Your task to perform on an android device: make emails show in primary in the gmail app Image 0: 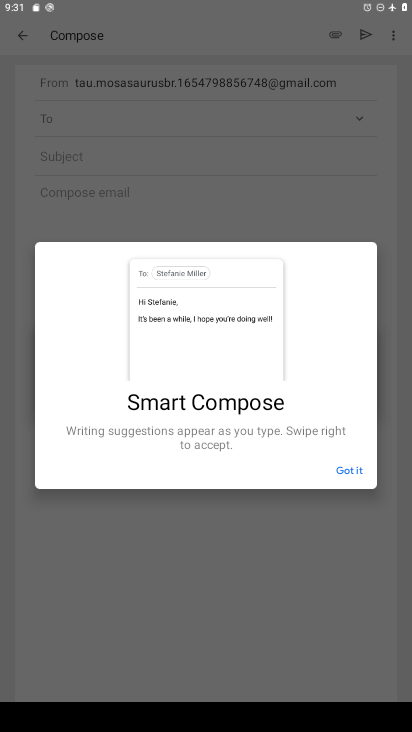
Step 0: press home button
Your task to perform on an android device: make emails show in primary in the gmail app Image 1: 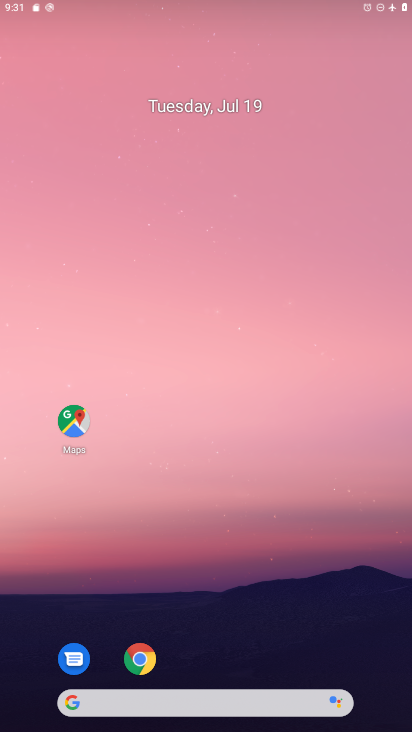
Step 1: drag from (251, 638) to (261, 197)
Your task to perform on an android device: make emails show in primary in the gmail app Image 2: 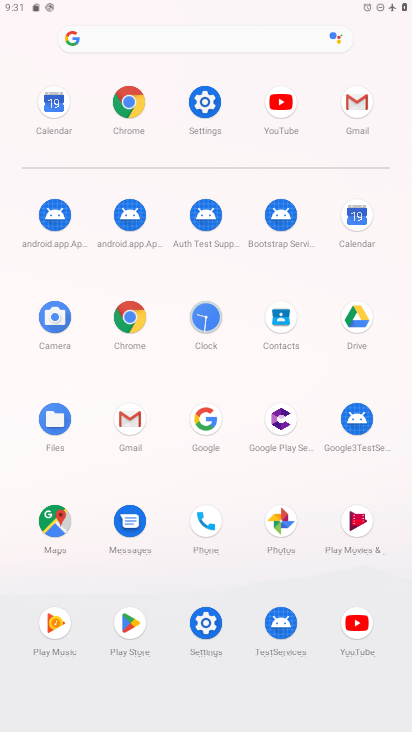
Step 2: click (343, 96)
Your task to perform on an android device: make emails show in primary in the gmail app Image 3: 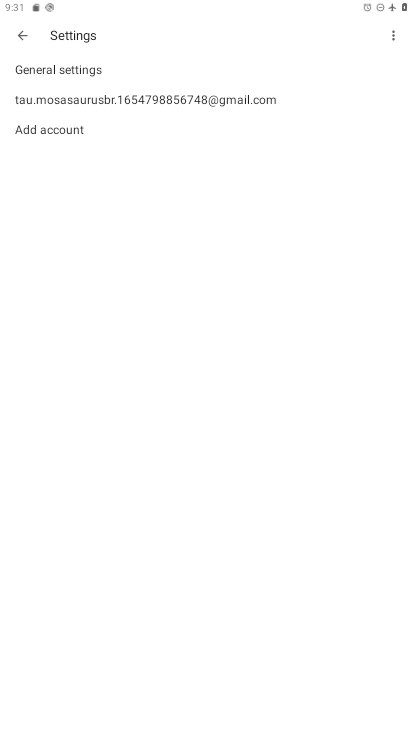
Step 3: click (54, 101)
Your task to perform on an android device: make emails show in primary in the gmail app Image 4: 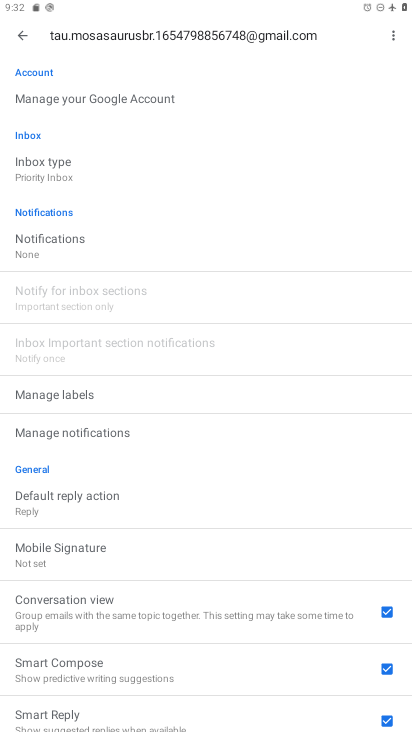
Step 4: task complete